Your task to perform on an android device: toggle sleep mode Image 0: 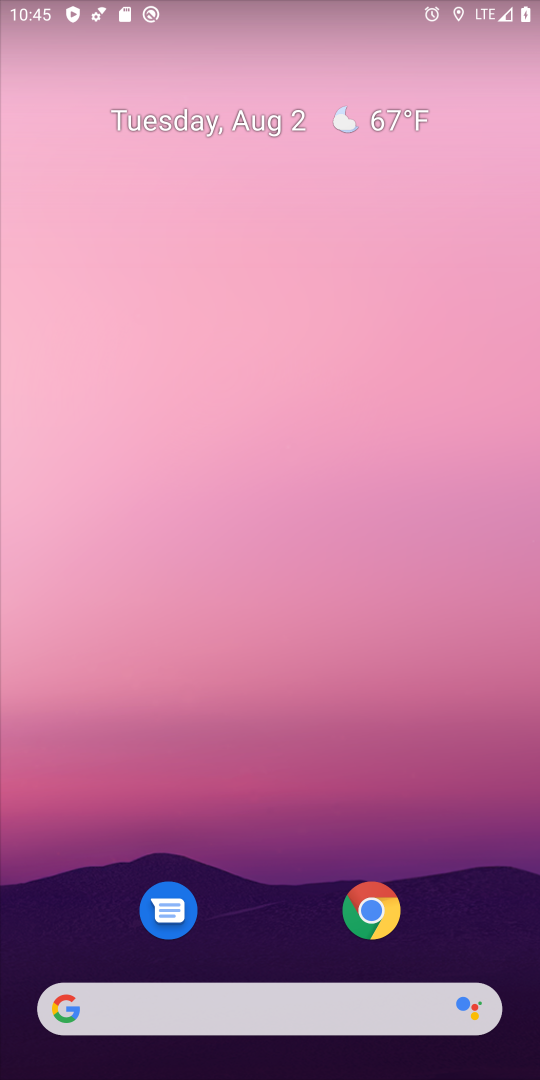
Step 0: drag from (246, 865) to (342, 313)
Your task to perform on an android device: toggle sleep mode Image 1: 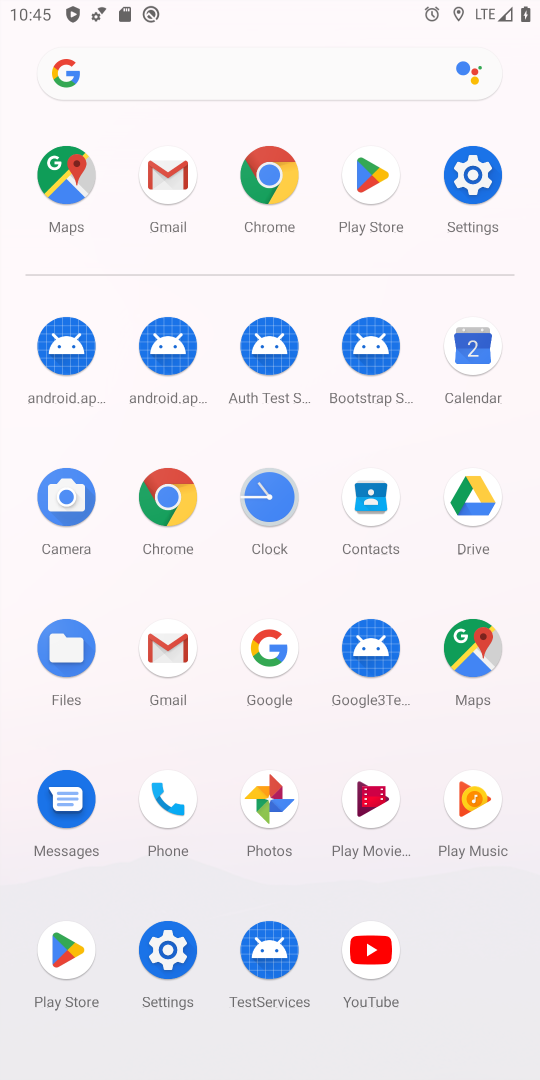
Step 1: click (461, 169)
Your task to perform on an android device: toggle sleep mode Image 2: 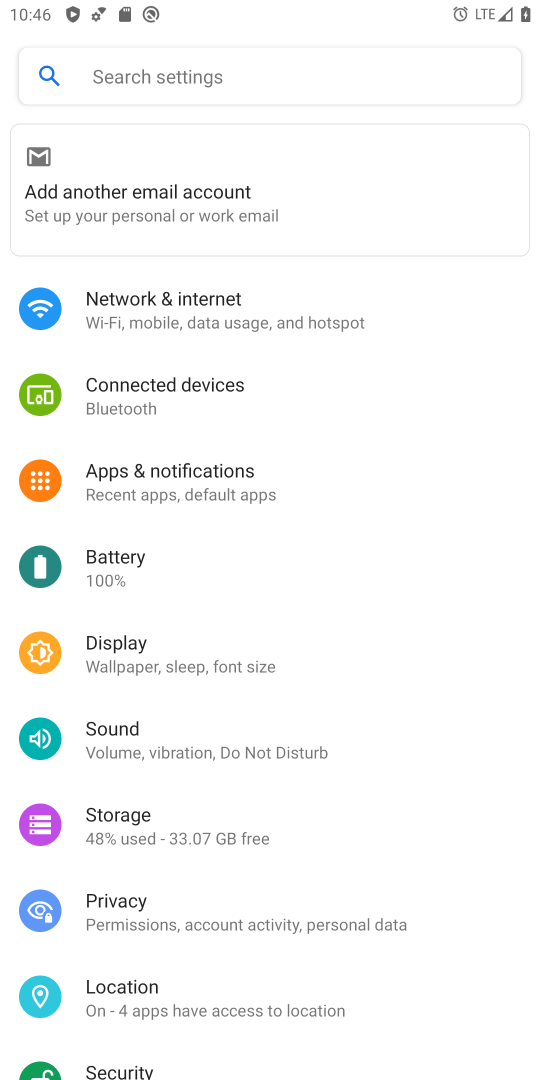
Step 2: task complete